Your task to perform on an android device: When is my next meeting? Image 0: 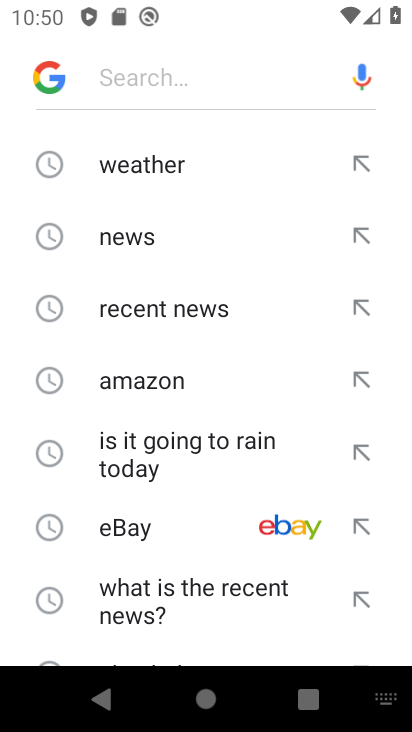
Step 0: press back button
Your task to perform on an android device: When is my next meeting? Image 1: 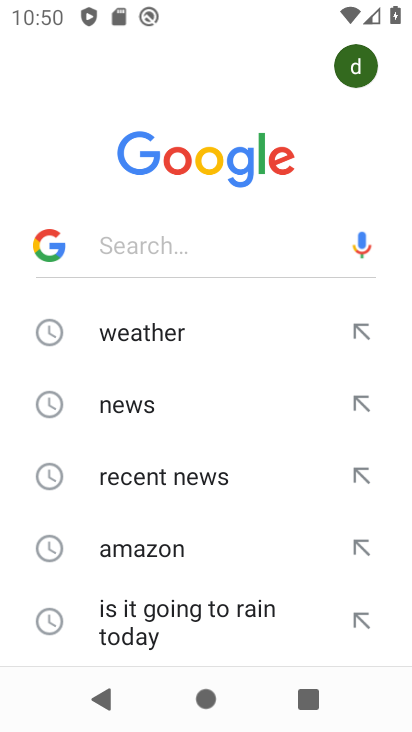
Step 1: press back button
Your task to perform on an android device: When is my next meeting? Image 2: 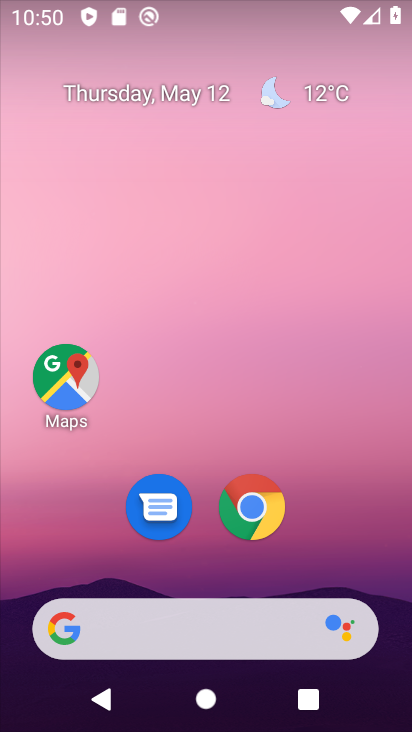
Step 2: drag from (192, 568) to (253, 0)
Your task to perform on an android device: When is my next meeting? Image 3: 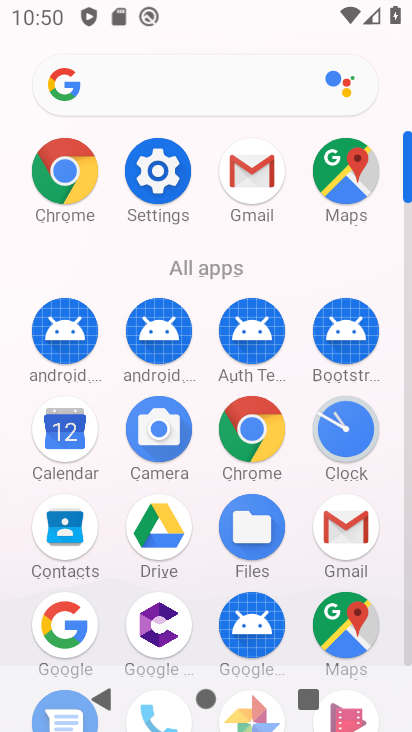
Step 3: click (63, 439)
Your task to perform on an android device: When is my next meeting? Image 4: 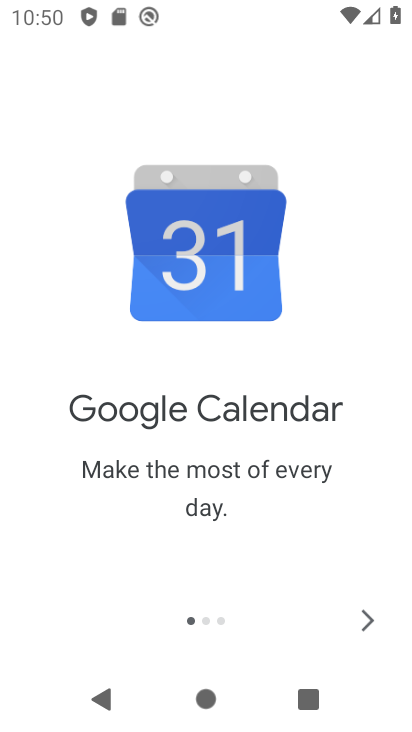
Step 4: click (371, 626)
Your task to perform on an android device: When is my next meeting? Image 5: 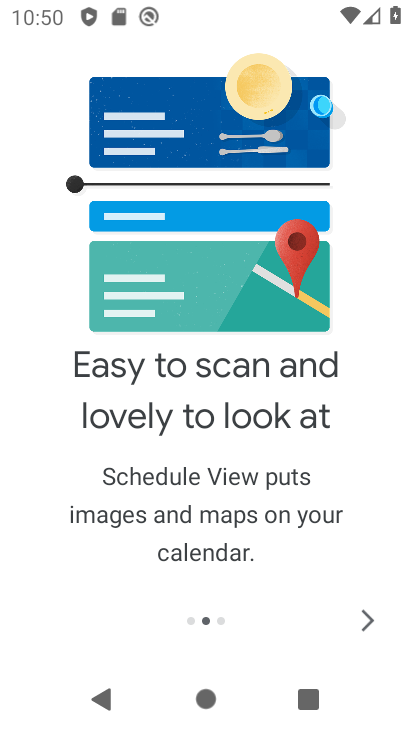
Step 5: click (371, 626)
Your task to perform on an android device: When is my next meeting? Image 6: 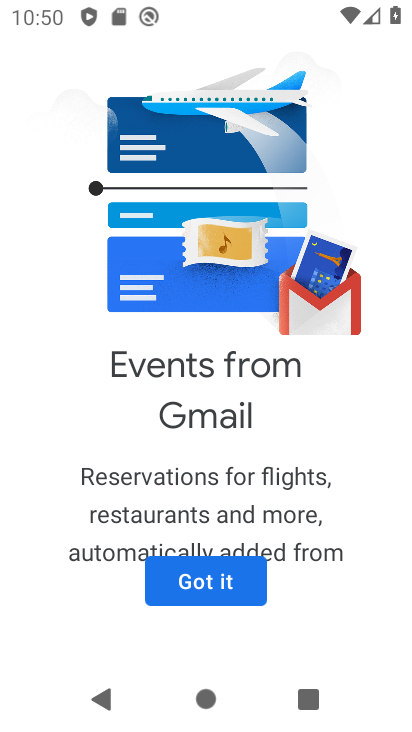
Step 6: click (215, 582)
Your task to perform on an android device: When is my next meeting? Image 7: 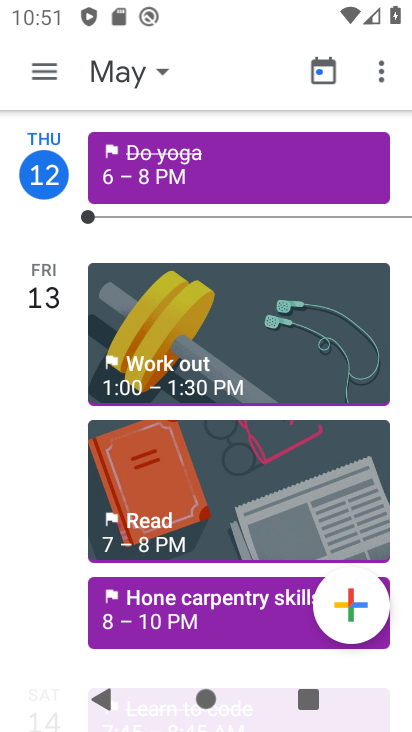
Step 7: task complete